Your task to perform on an android device: turn off smart reply in the gmail app Image 0: 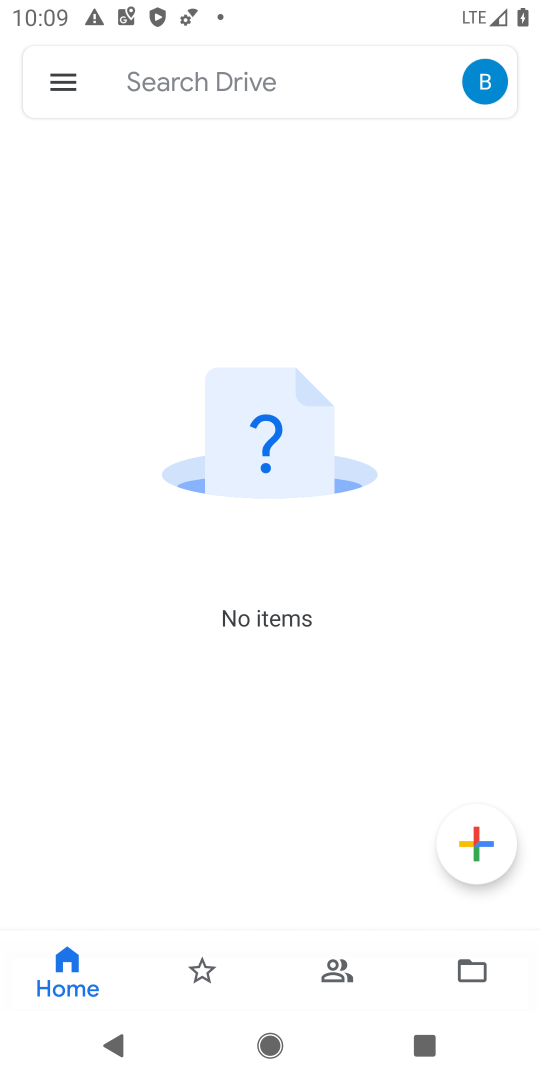
Step 0: press back button
Your task to perform on an android device: turn off smart reply in the gmail app Image 1: 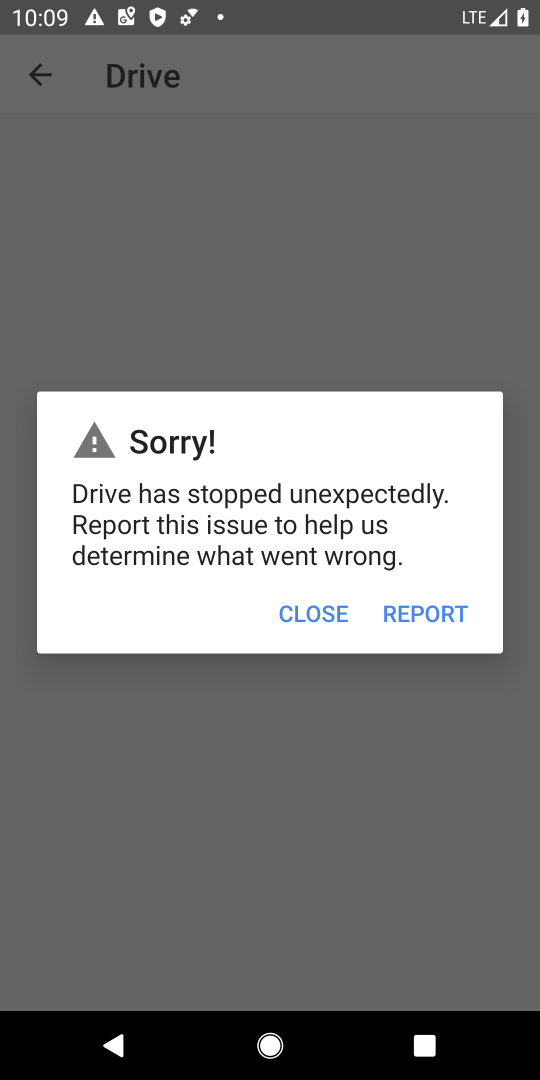
Step 1: press home button
Your task to perform on an android device: turn off smart reply in the gmail app Image 2: 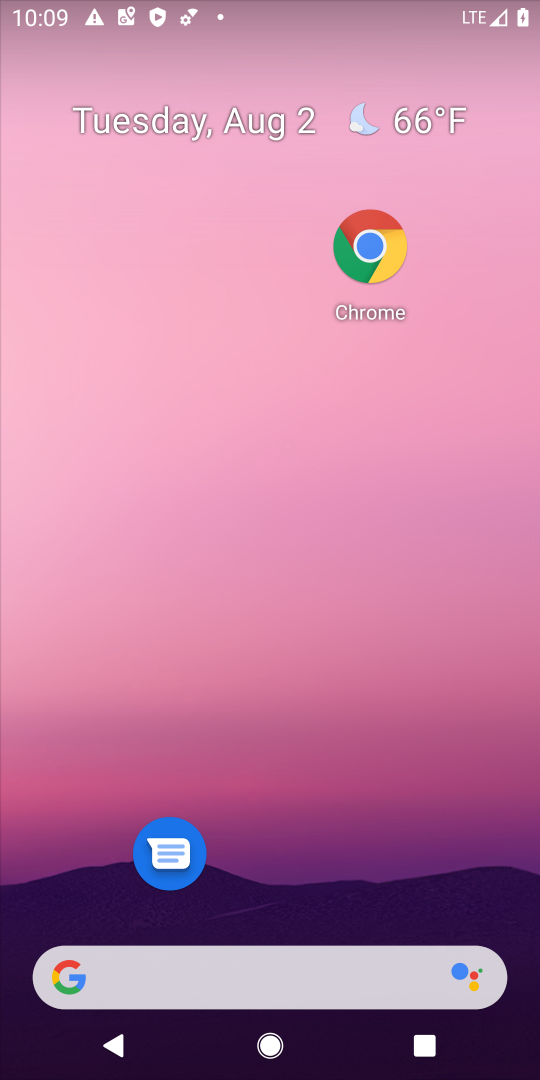
Step 2: drag from (276, 920) to (258, 21)
Your task to perform on an android device: turn off smart reply in the gmail app Image 3: 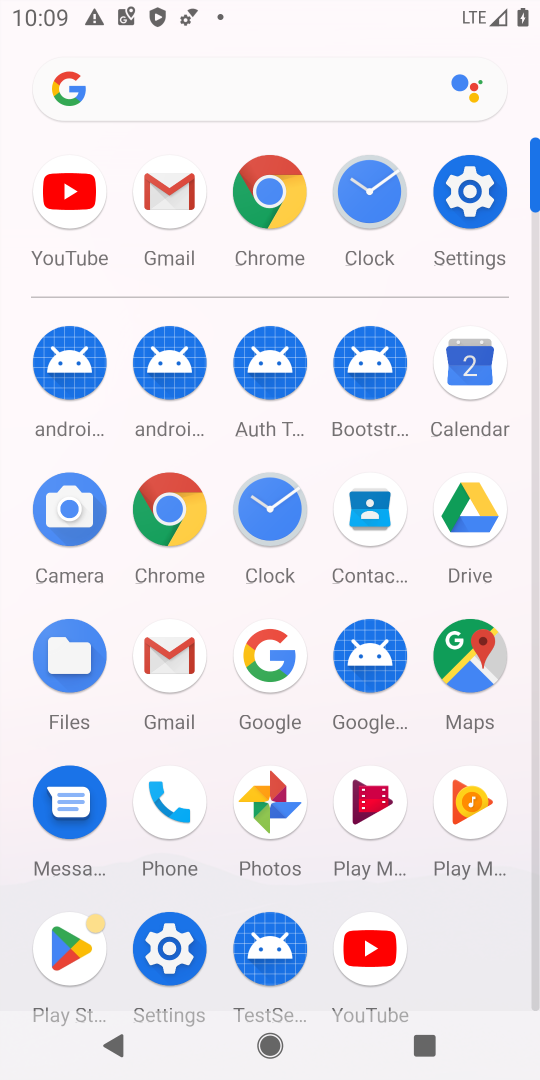
Step 3: click (184, 683)
Your task to perform on an android device: turn off smart reply in the gmail app Image 4: 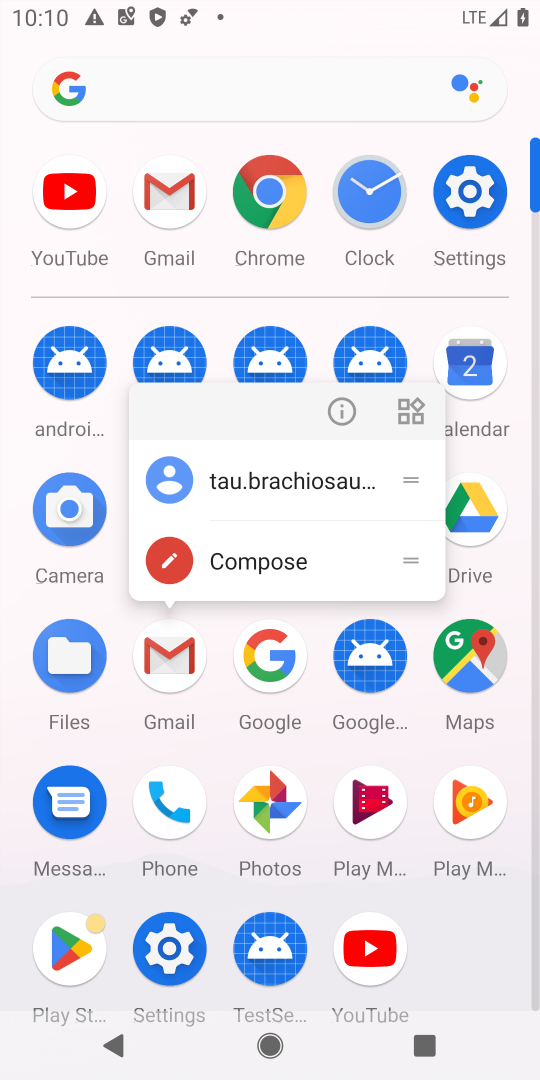
Step 4: click (187, 668)
Your task to perform on an android device: turn off smart reply in the gmail app Image 5: 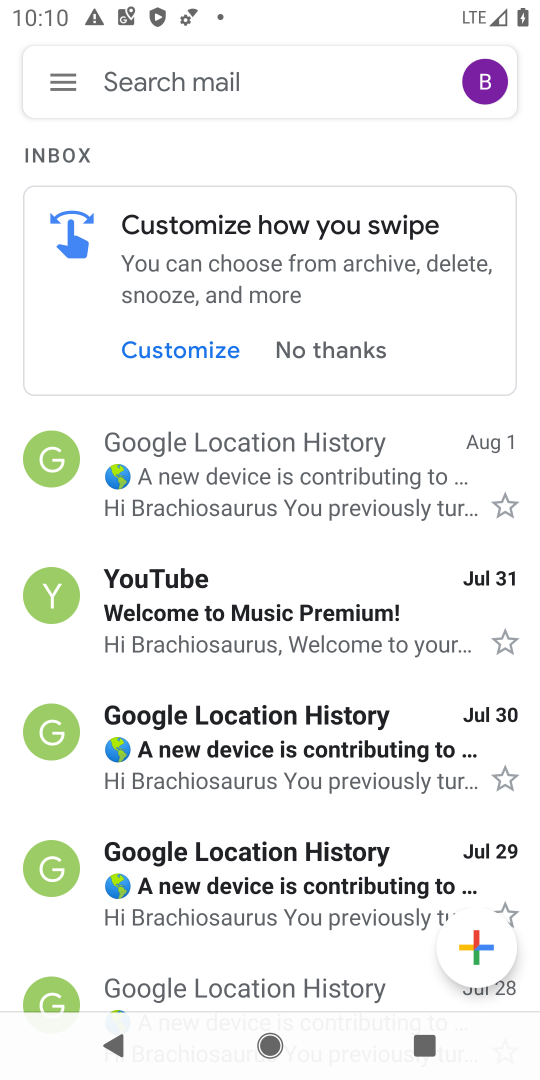
Step 5: click (52, 91)
Your task to perform on an android device: turn off smart reply in the gmail app Image 6: 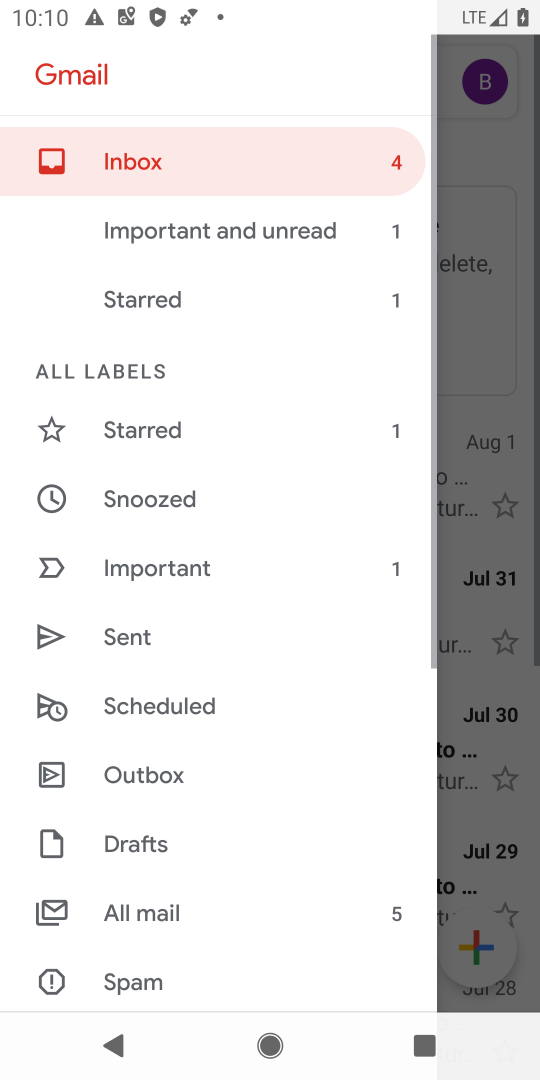
Step 6: drag from (143, 758) to (147, 3)
Your task to perform on an android device: turn off smart reply in the gmail app Image 7: 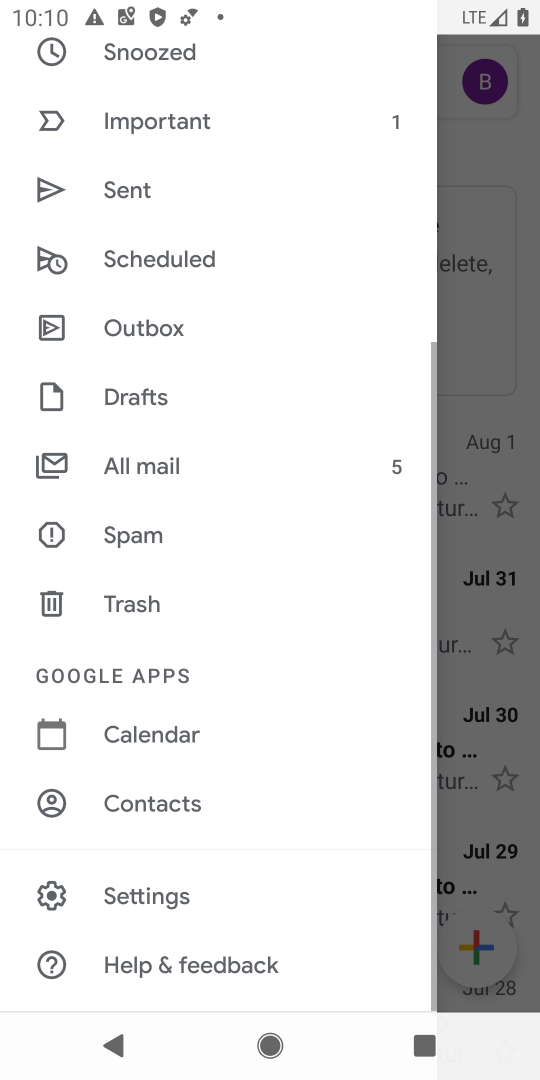
Step 7: click (153, 904)
Your task to perform on an android device: turn off smart reply in the gmail app Image 8: 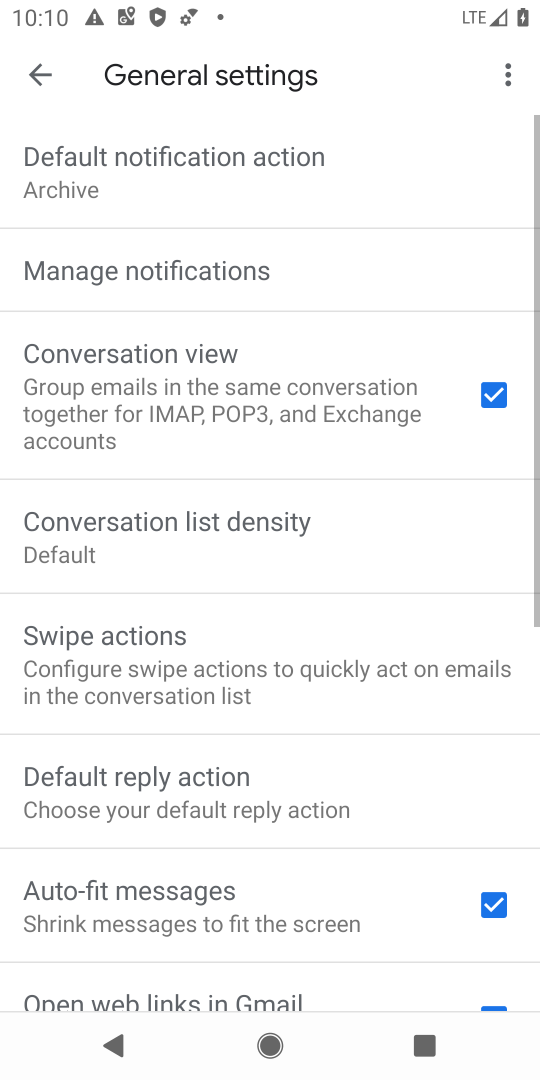
Step 8: drag from (153, 904) to (149, 296)
Your task to perform on an android device: turn off smart reply in the gmail app Image 9: 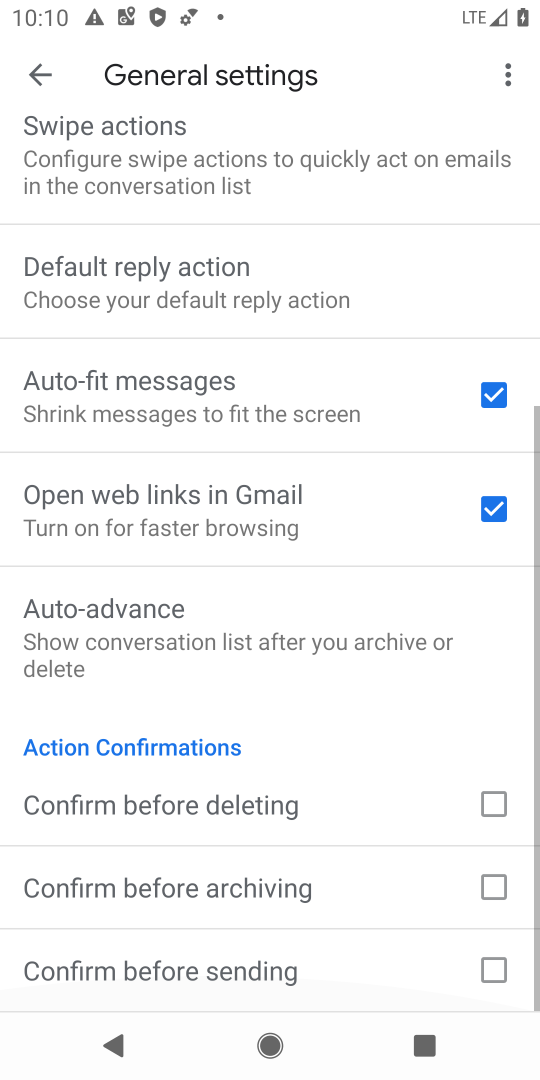
Step 9: click (45, 63)
Your task to perform on an android device: turn off smart reply in the gmail app Image 10: 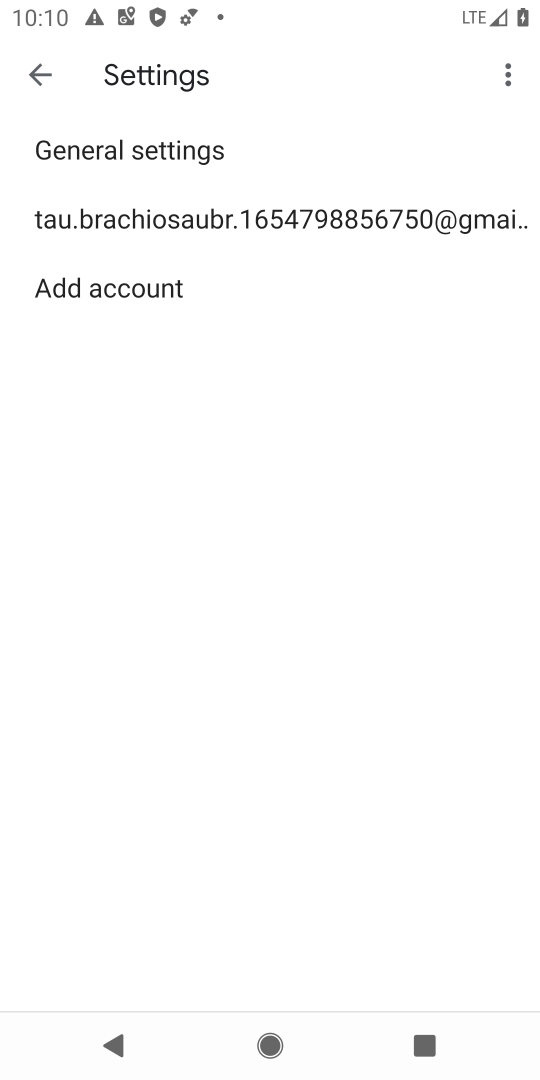
Step 10: click (117, 207)
Your task to perform on an android device: turn off smart reply in the gmail app Image 11: 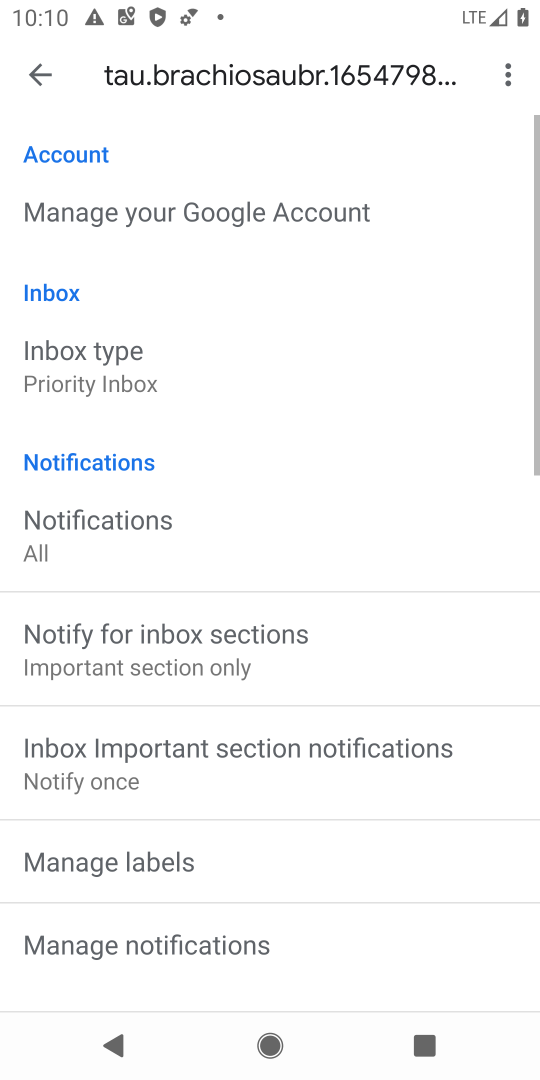
Step 11: drag from (312, 921) to (266, 228)
Your task to perform on an android device: turn off smart reply in the gmail app Image 12: 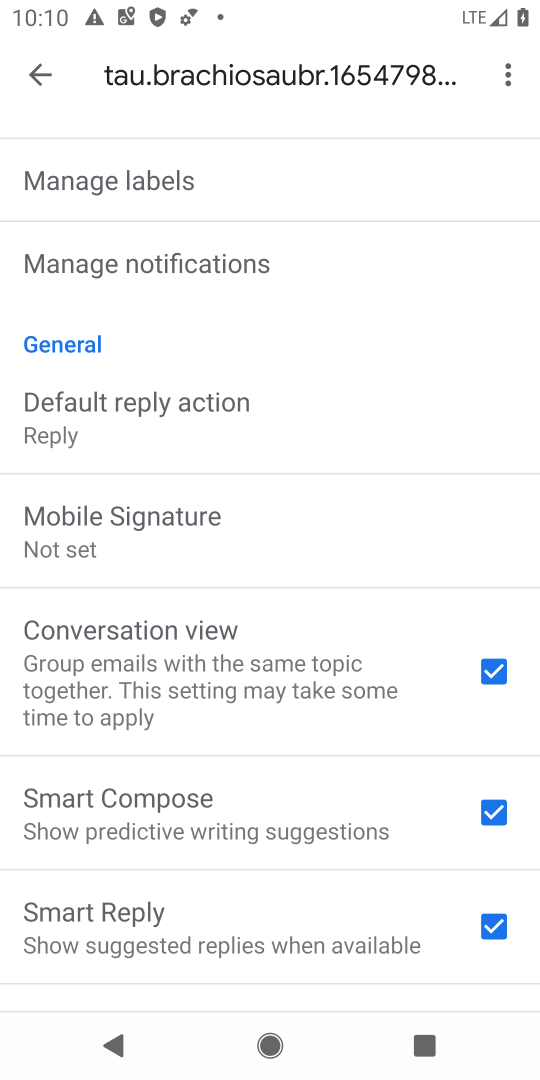
Step 12: click (252, 879)
Your task to perform on an android device: turn off smart reply in the gmail app Image 13: 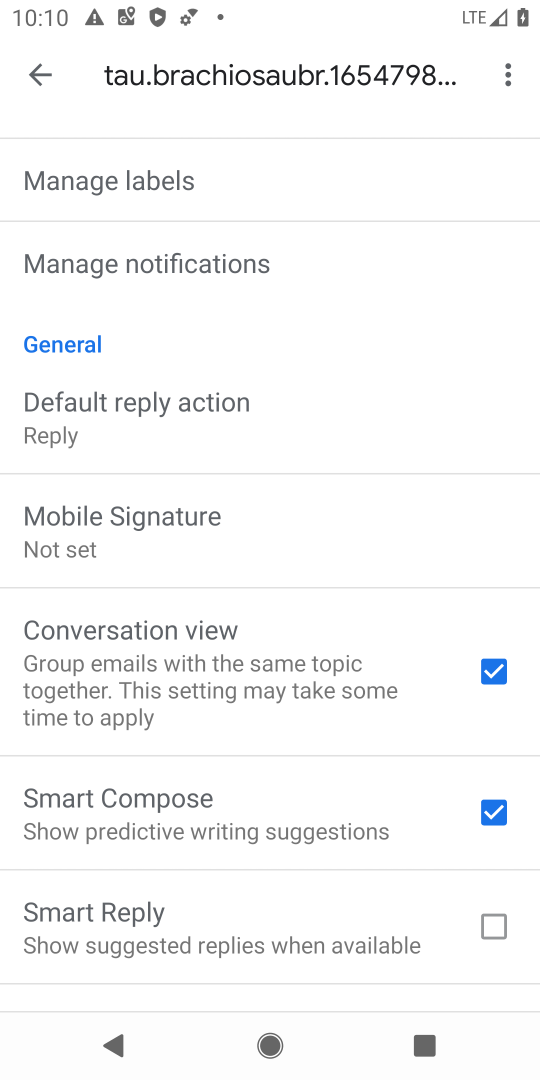
Step 13: task complete